Your task to perform on an android device: Go to Maps Image 0: 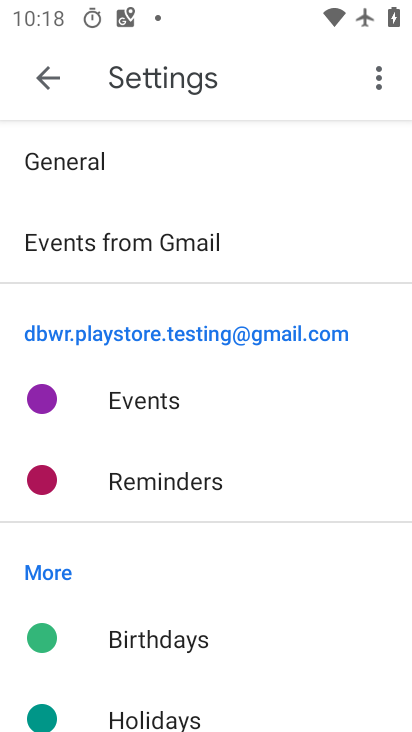
Step 0: press home button
Your task to perform on an android device: Go to Maps Image 1: 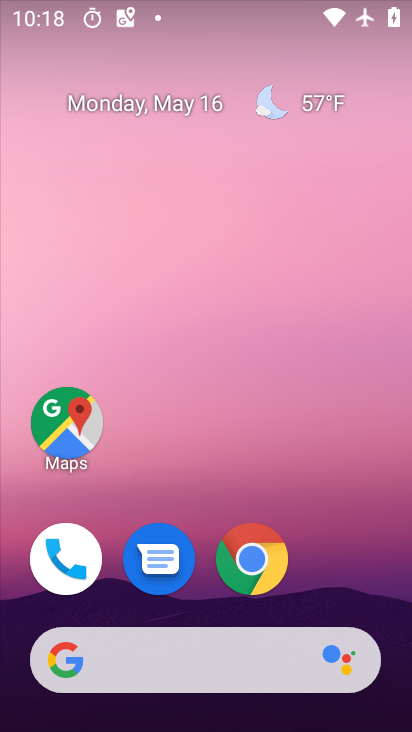
Step 1: click (60, 432)
Your task to perform on an android device: Go to Maps Image 2: 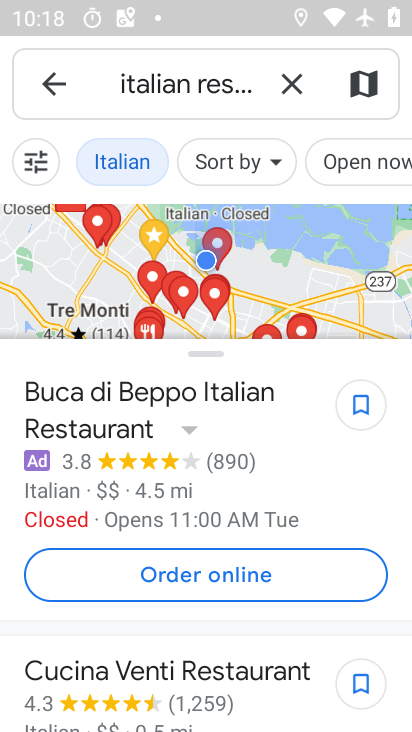
Step 2: task complete